Your task to perform on an android device: Search for Italian restaurants on Maps Image 0: 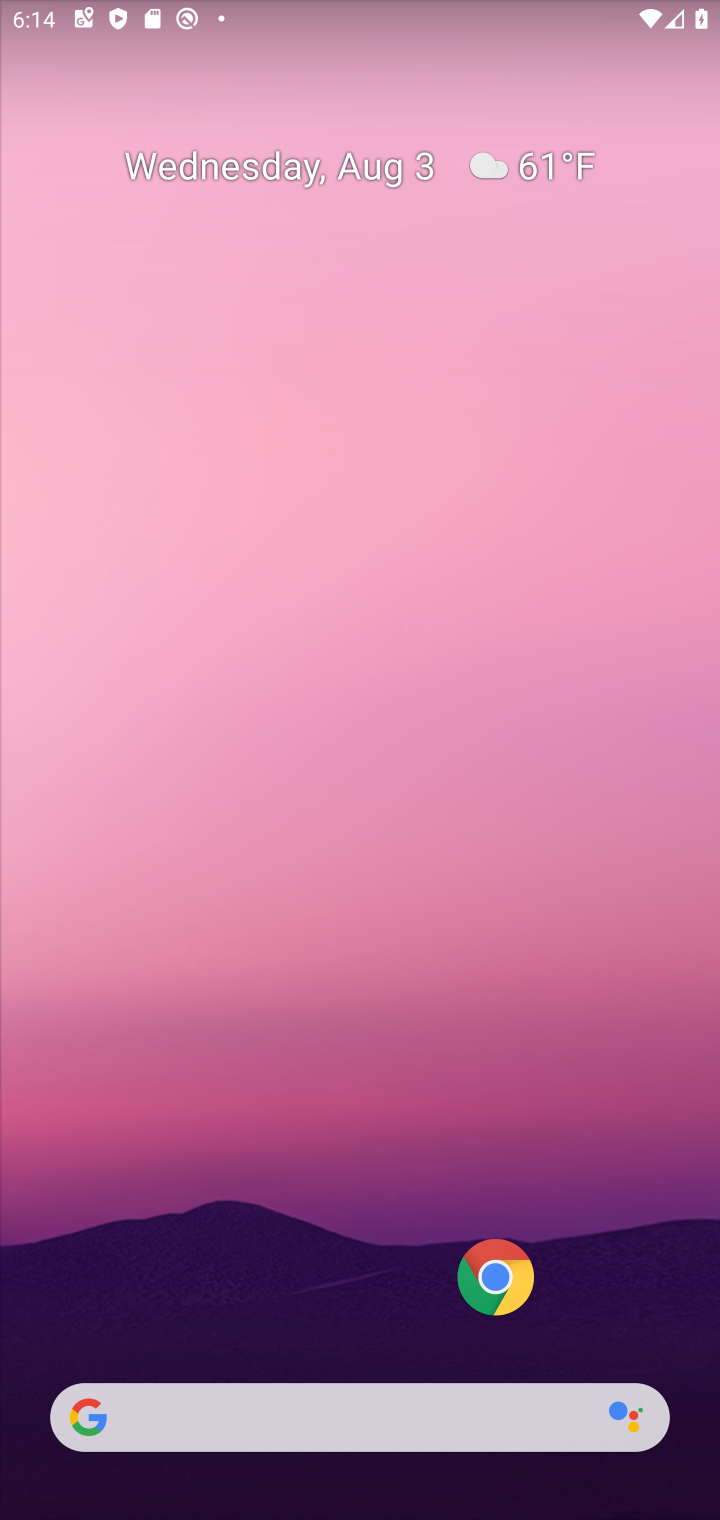
Step 0: drag from (223, 1286) to (308, 85)
Your task to perform on an android device: Search for Italian restaurants on Maps Image 1: 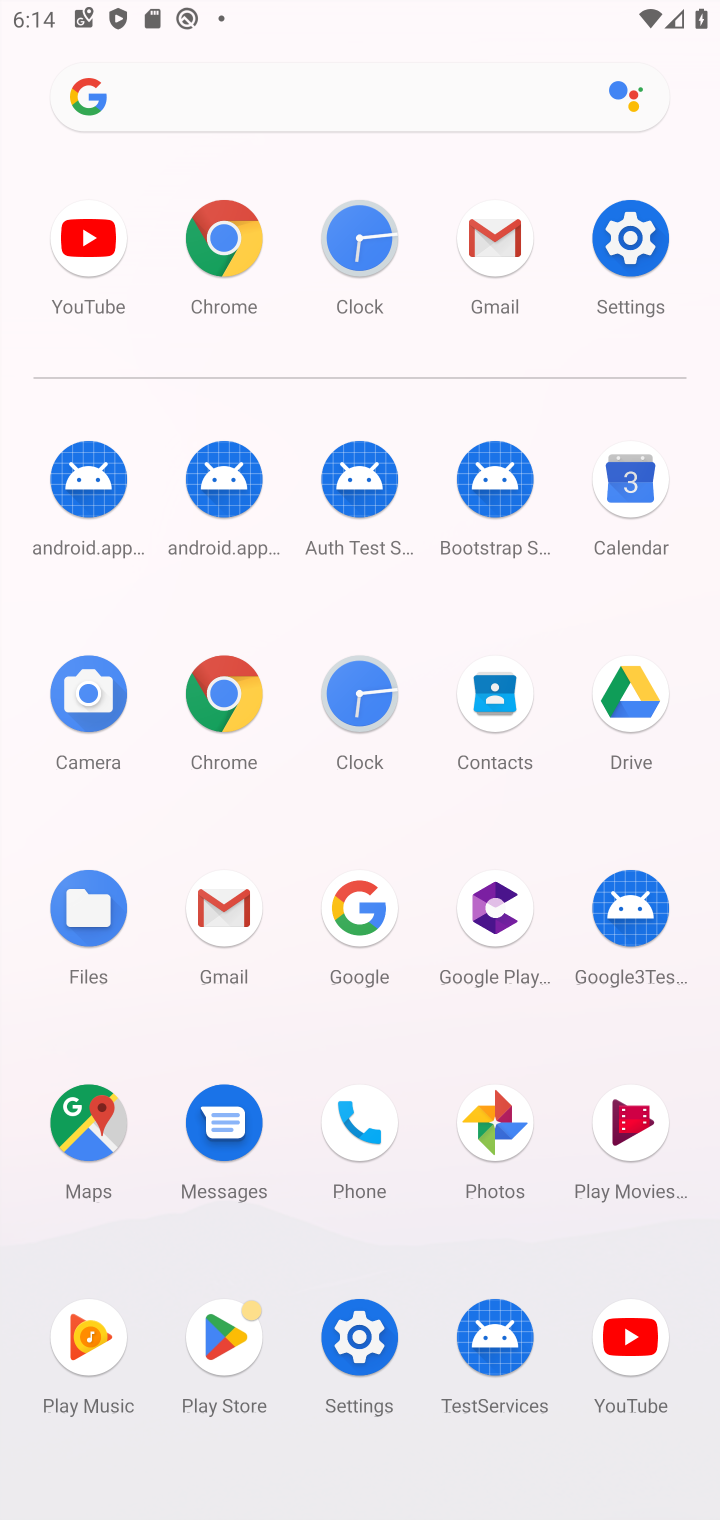
Step 1: click (92, 1118)
Your task to perform on an android device: Search for Italian restaurants on Maps Image 2: 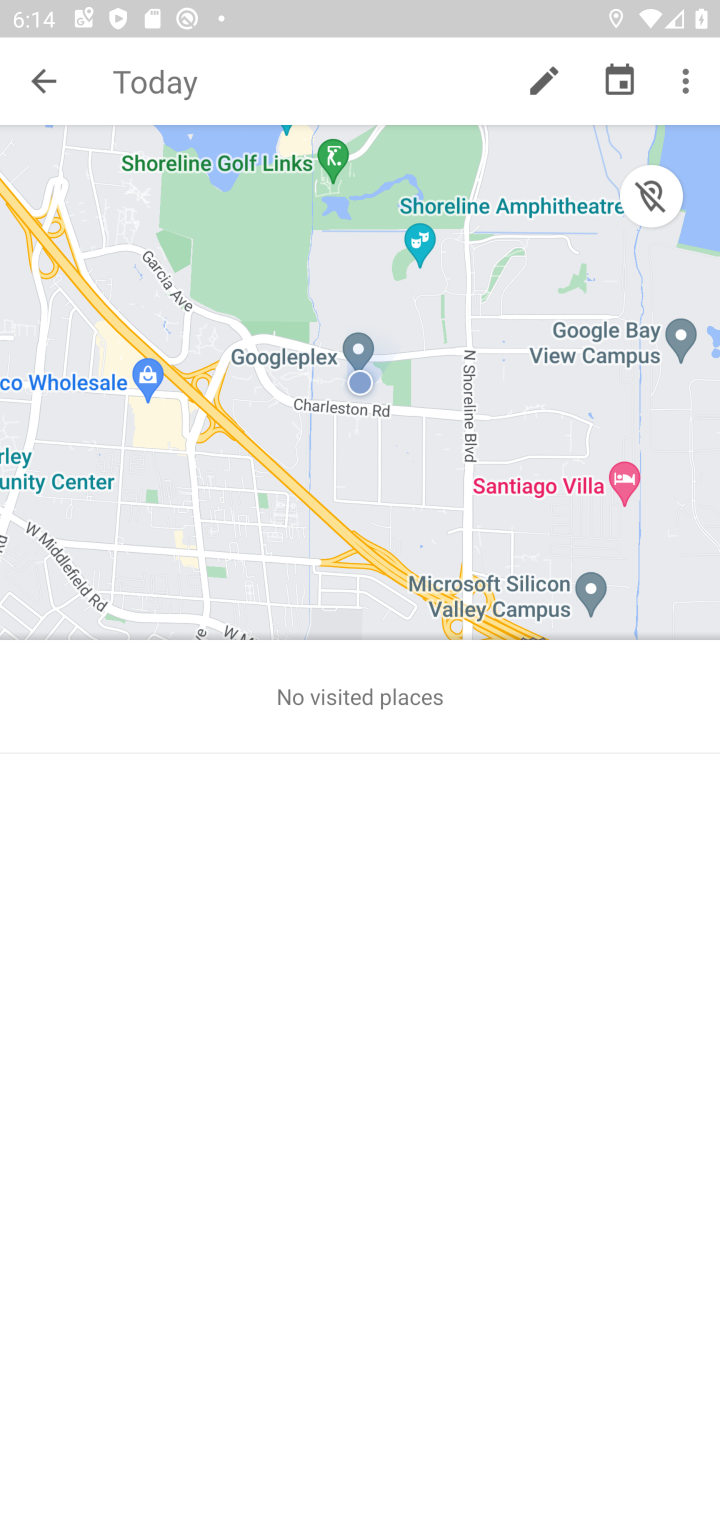
Step 2: click (26, 92)
Your task to perform on an android device: Search for Italian restaurants on Maps Image 3: 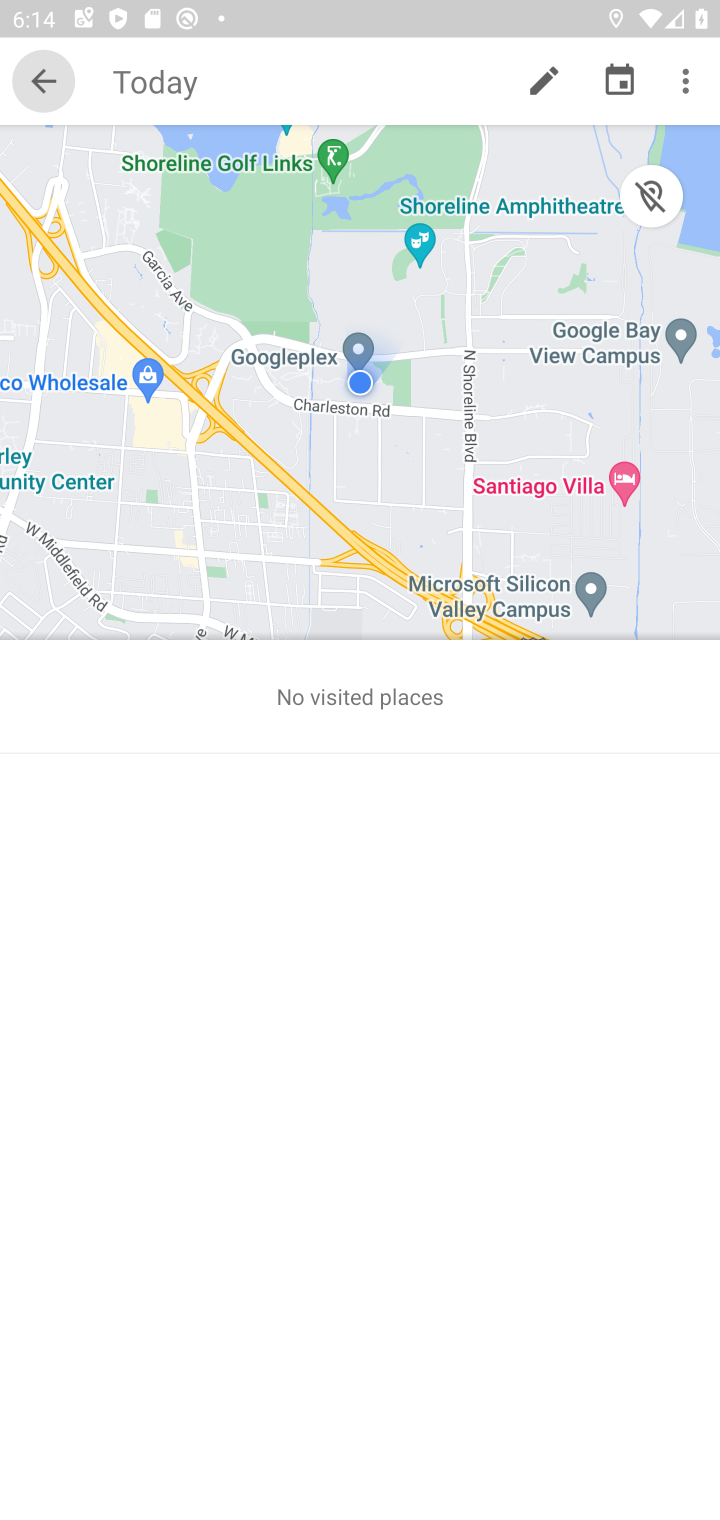
Step 3: click (69, 80)
Your task to perform on an android device: Search for Italian restaurants on Maps Image 4: 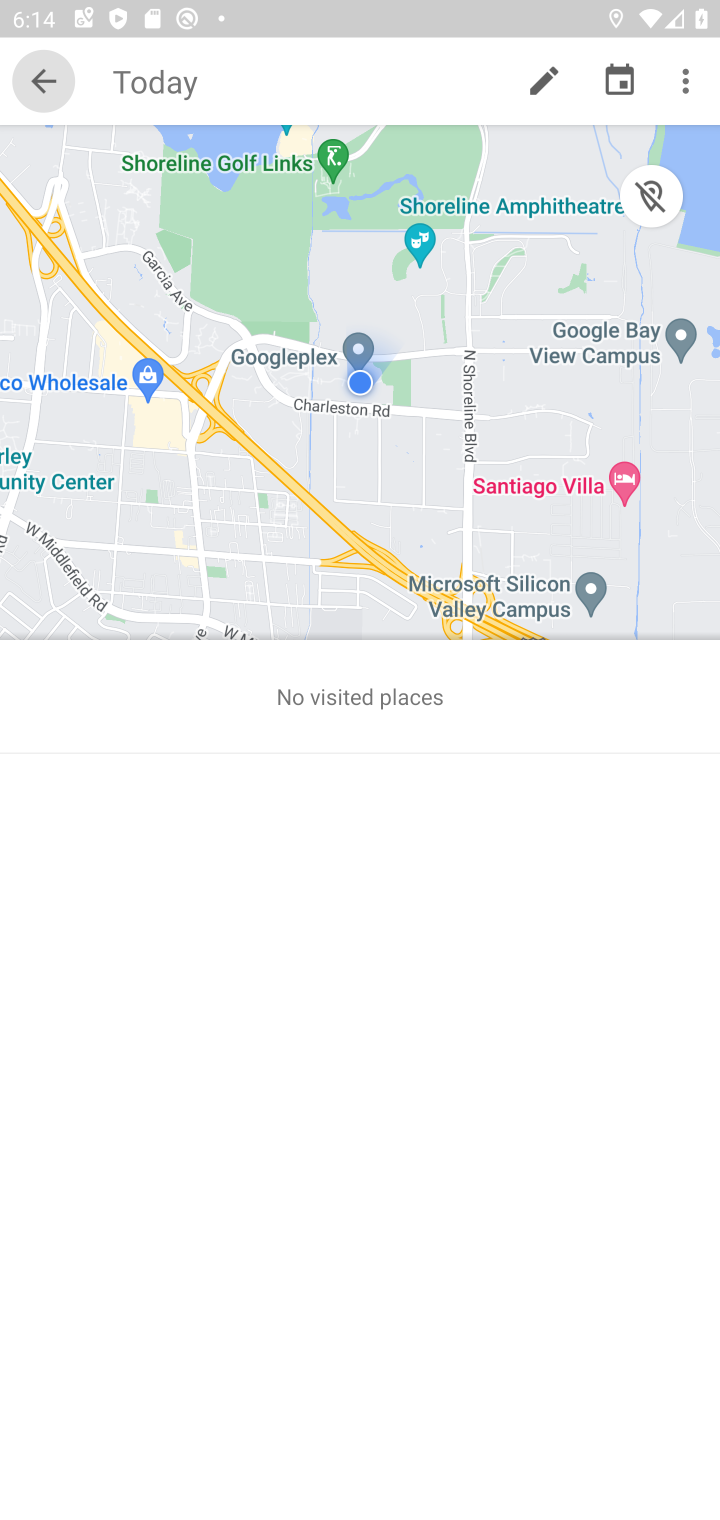
Step 4: click (41, 73)
Your task to perform on an android device: Search for Italian restaurants on Maps Image 5: 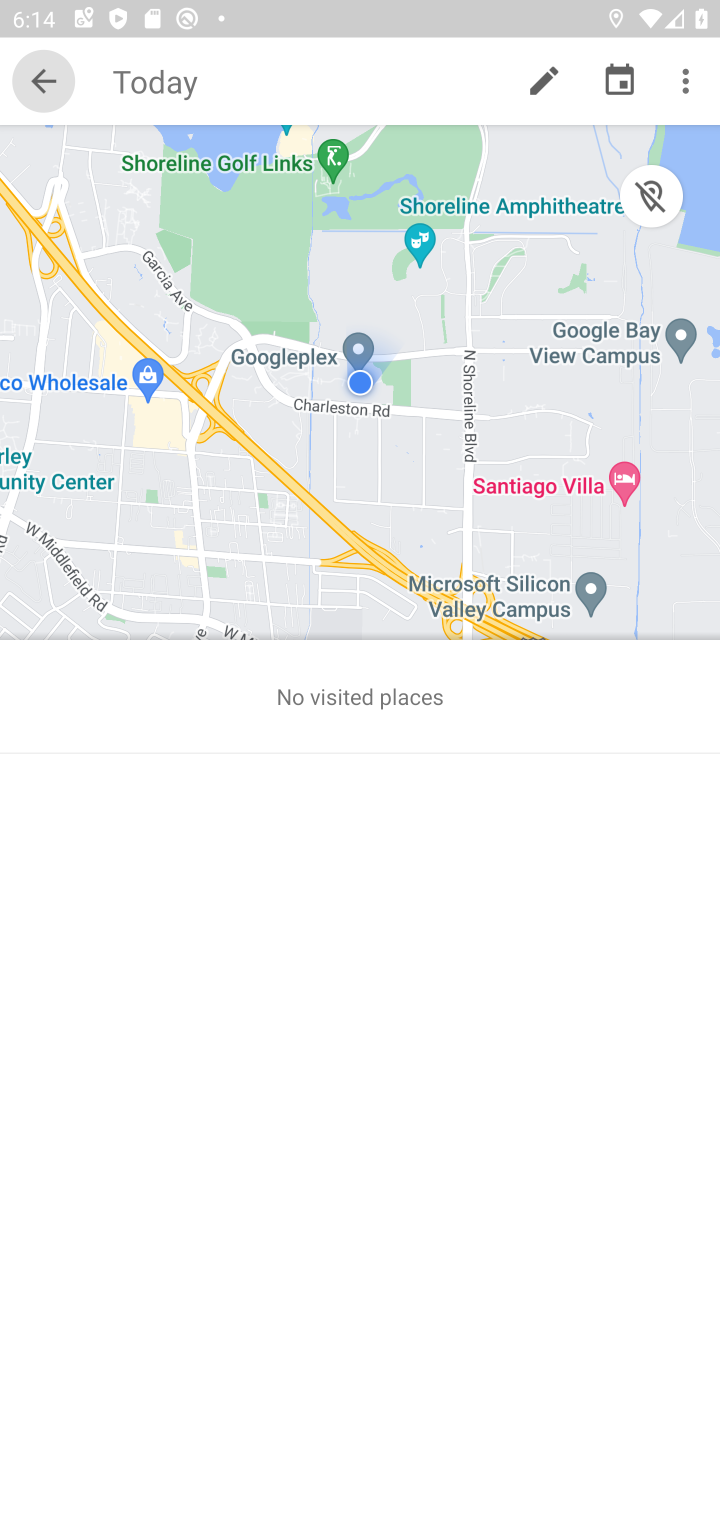
Step 5: click (52, 78)
Your task to perform on an android device: Search for Italian restaurants on Maps Image 6: 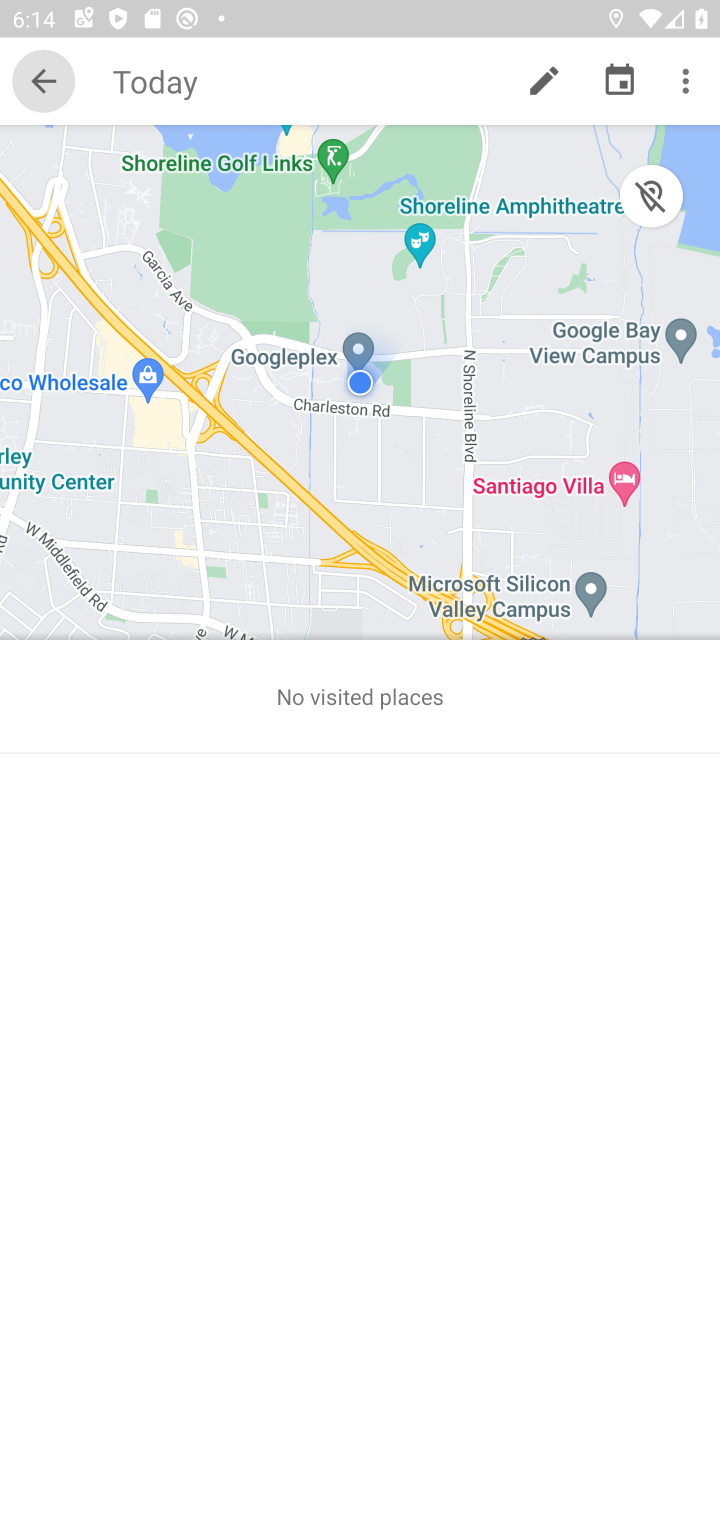
Step 6: click (38, 79)
Your task to perform on an android device: Search for Italian restaurants on Maps Image 7: 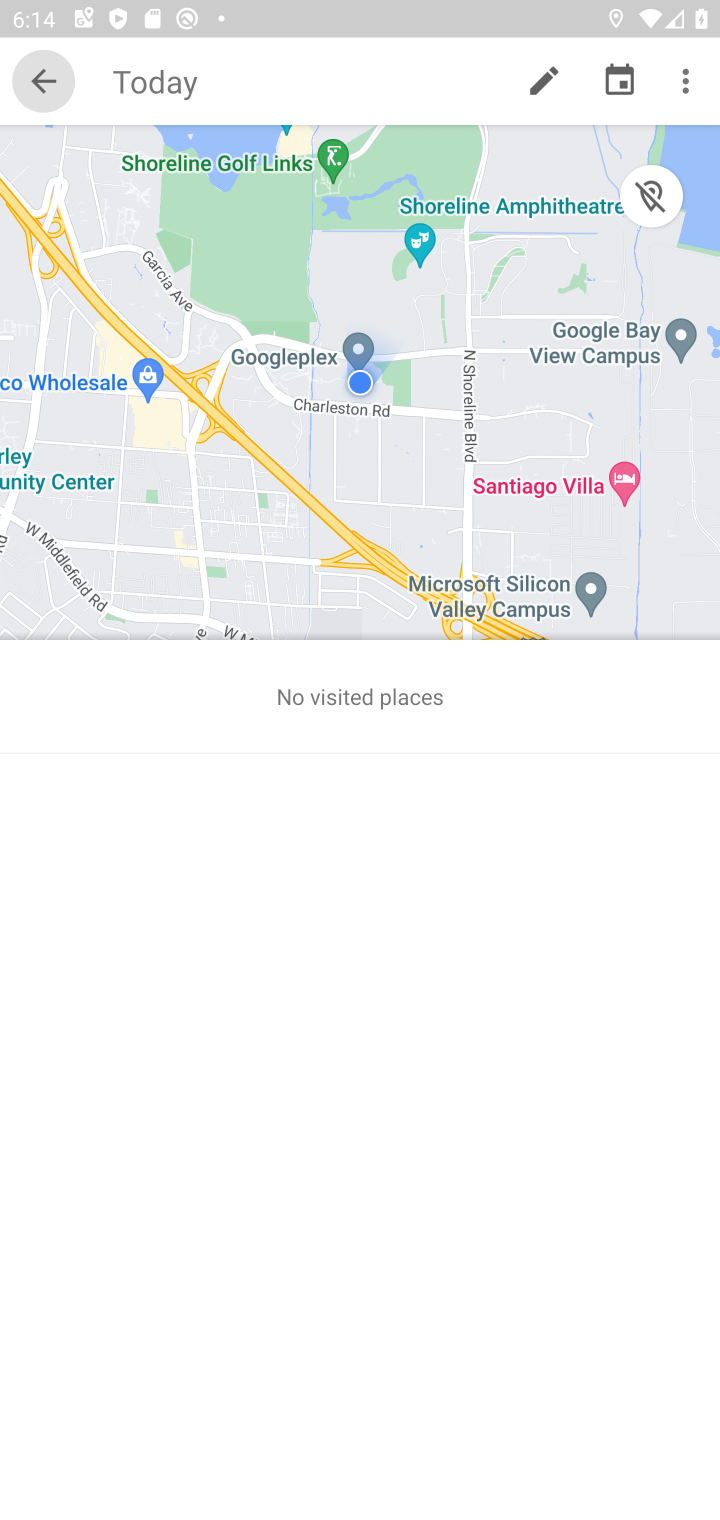
Step 7: click (551, 69)
Your task to perform on an android device: Search for Italian restaurants on Maps Image 8: 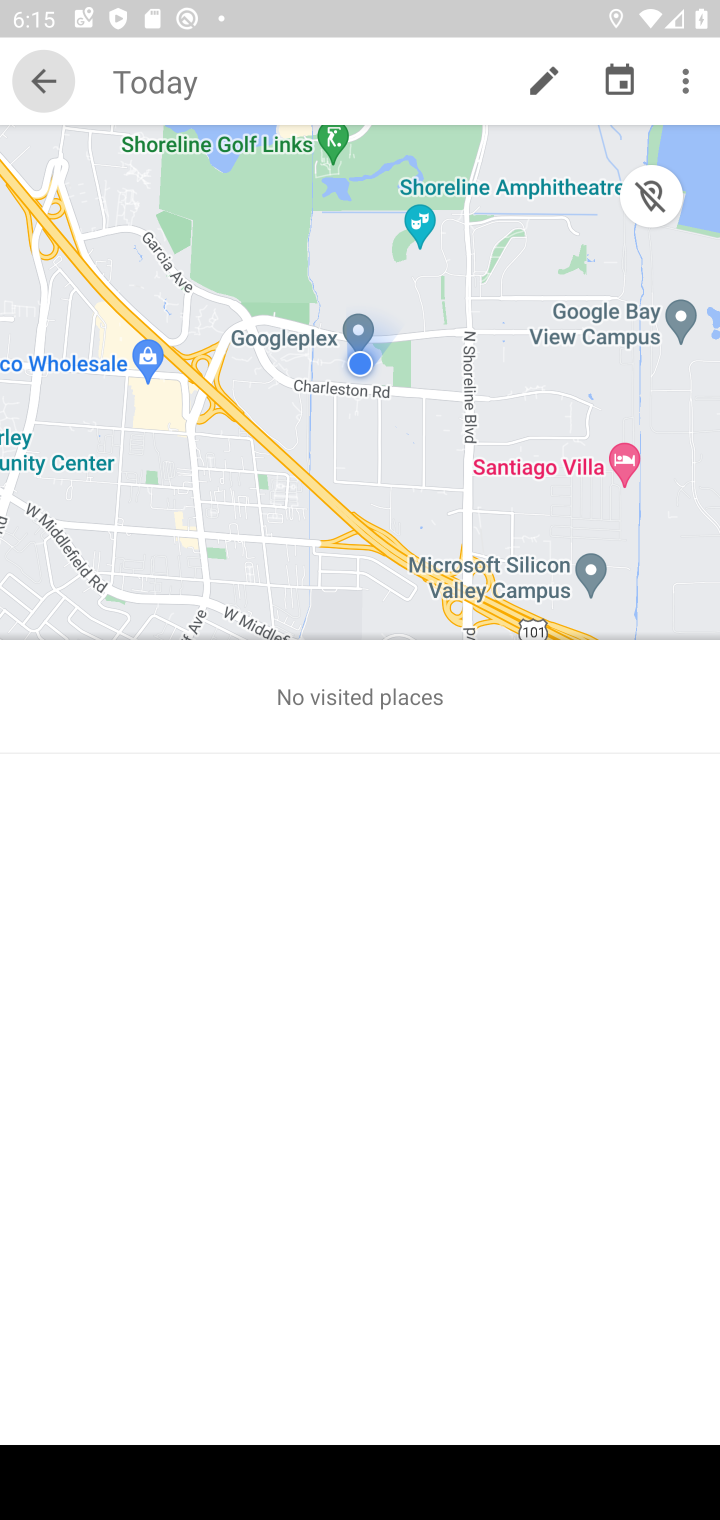
Step 8: click (70, 81)
Your task to perform on an android device: Search for Italian restaurants on Maps Image 9: 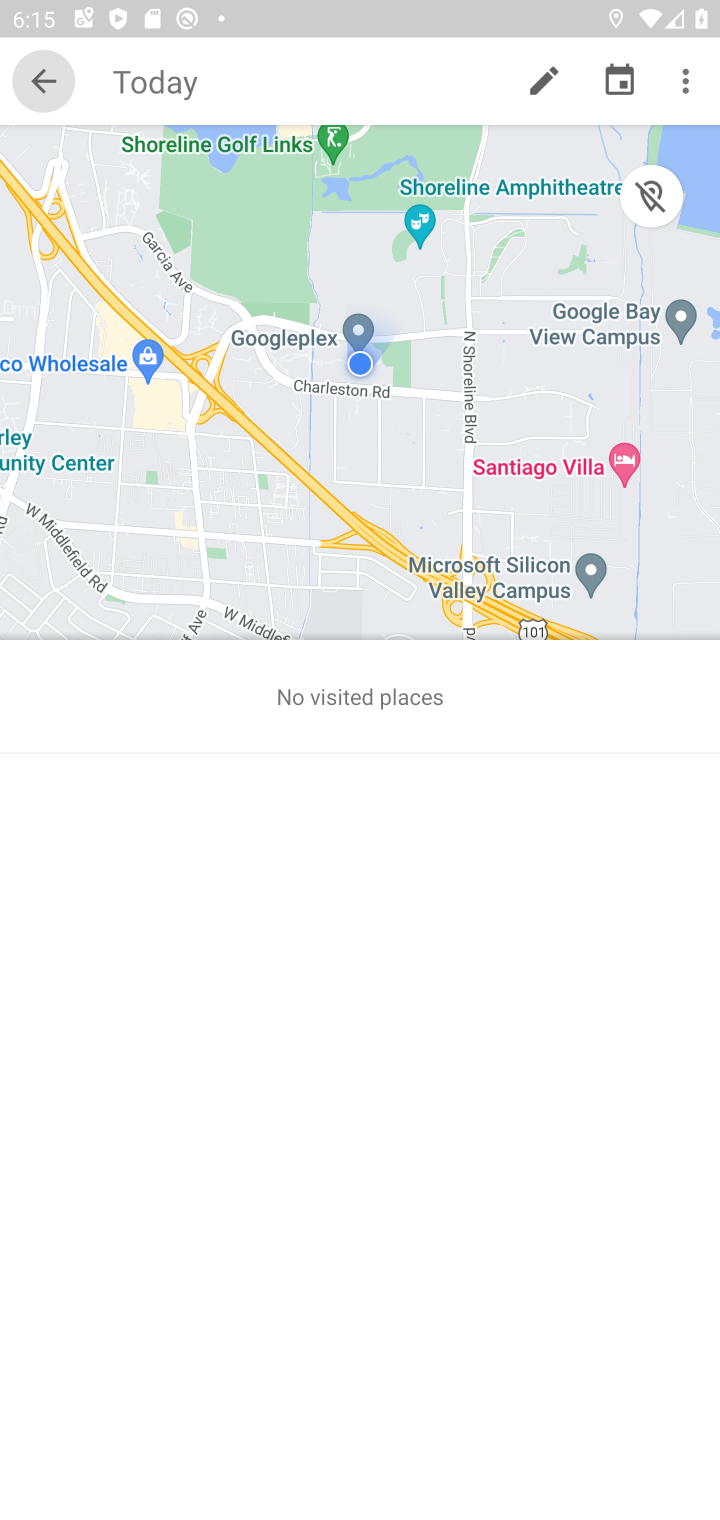
Step 9: press home button
Your task to perform on an android device: Search for Italian restaurants on Maps Image 10: 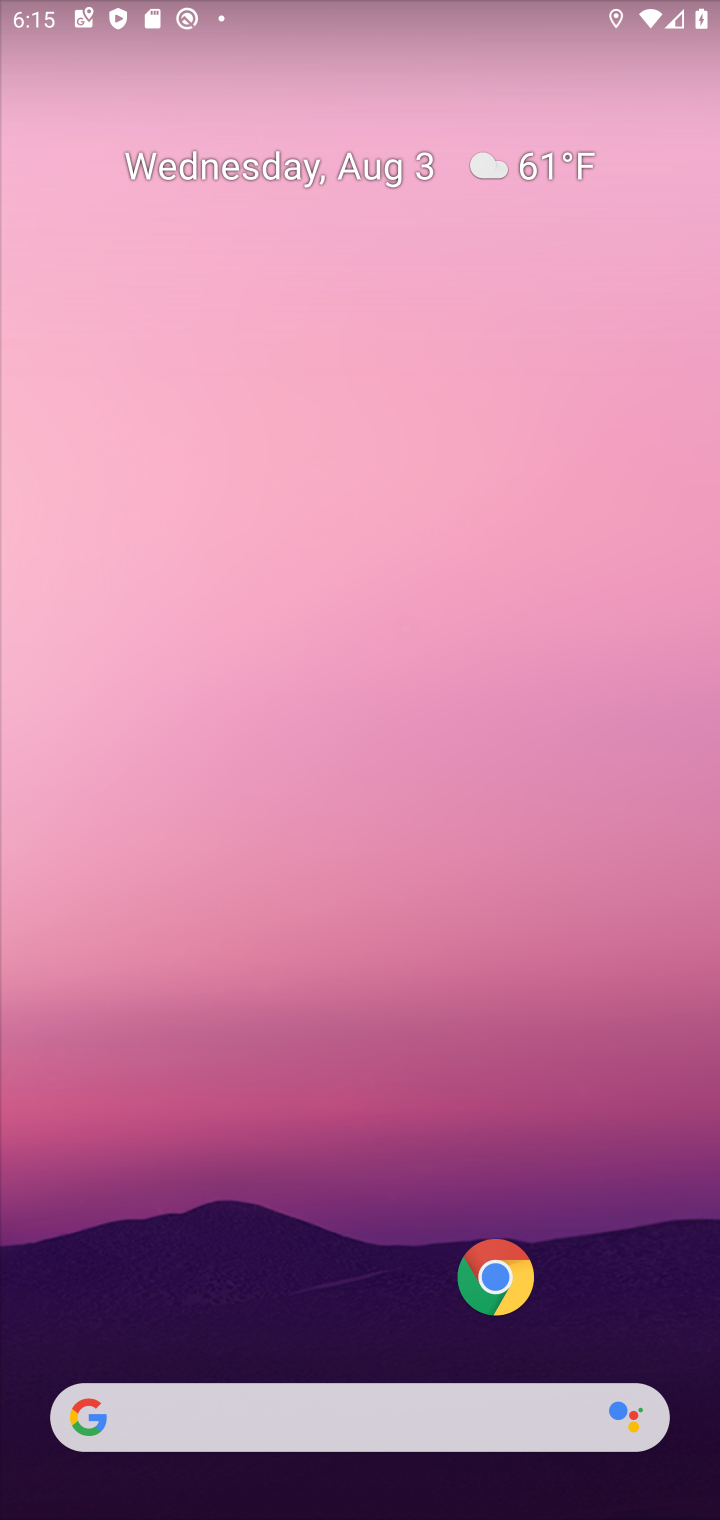
Step 10: drag from (264, 1193) to (450, 125)
Your task to perform on an android device: Search for Italian restaurants on Maps Image 11: 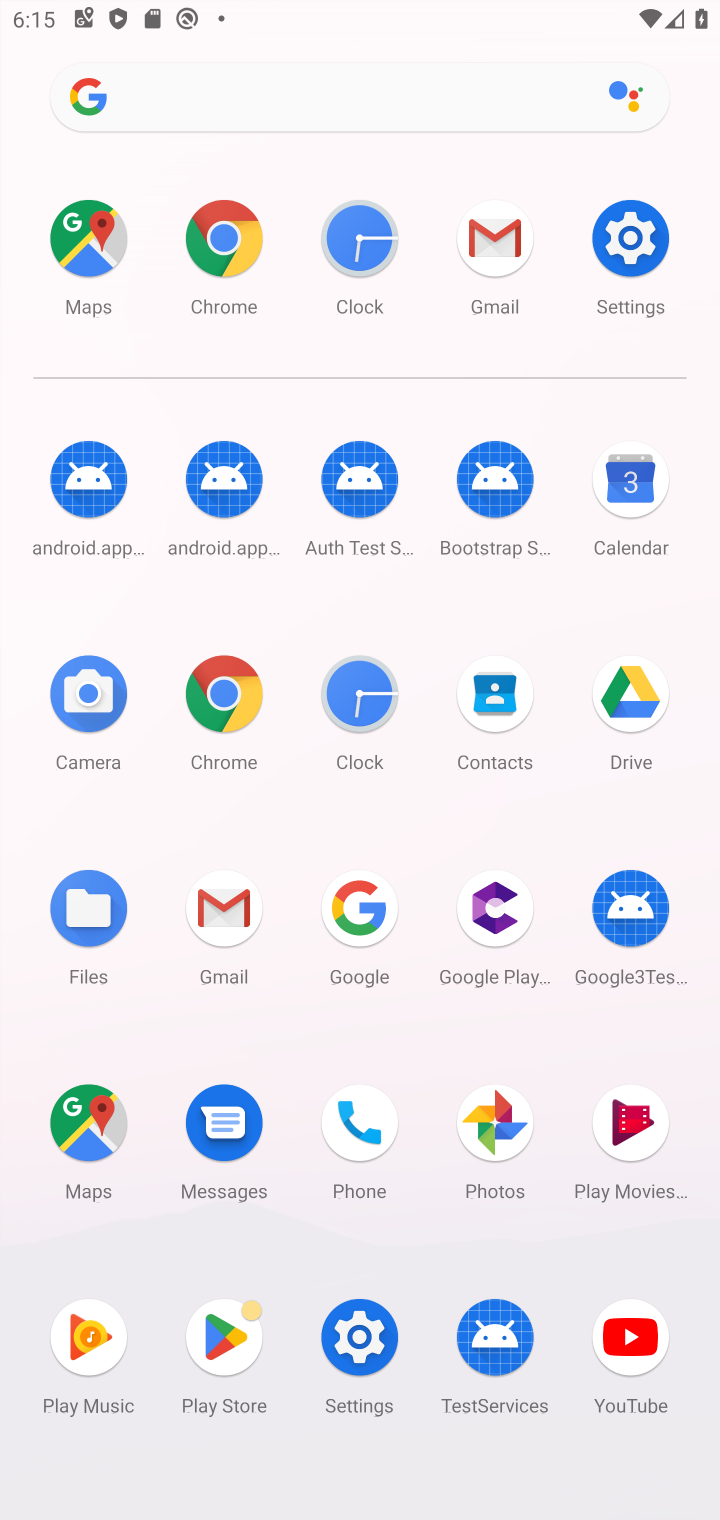
Step 11: click (100, 1139)
Your task to perform on an android device: Search for Italian restaurants on Maps Image 12: 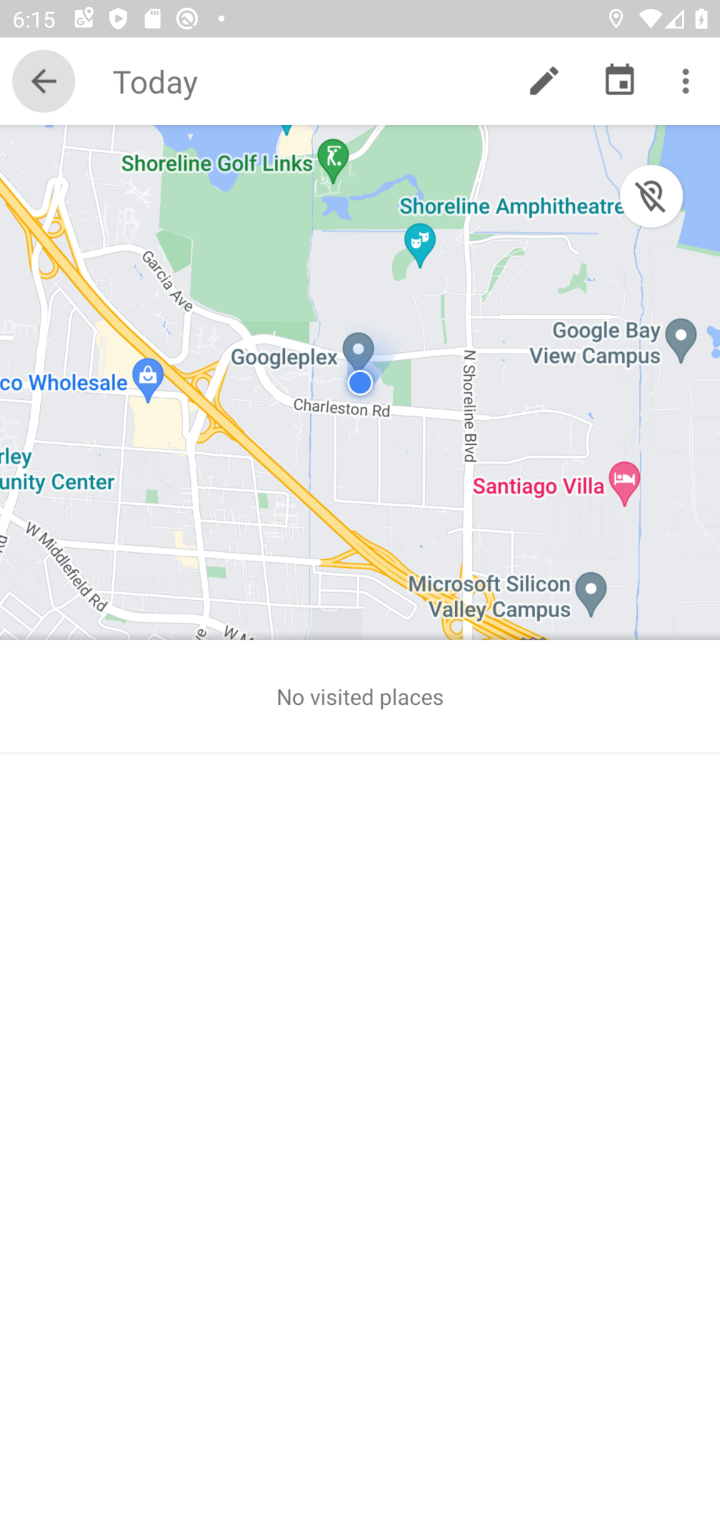
Step 12: click (35, 62)
Your task to perform on an android device: Search for Italian restaurants on Maps Image 13: 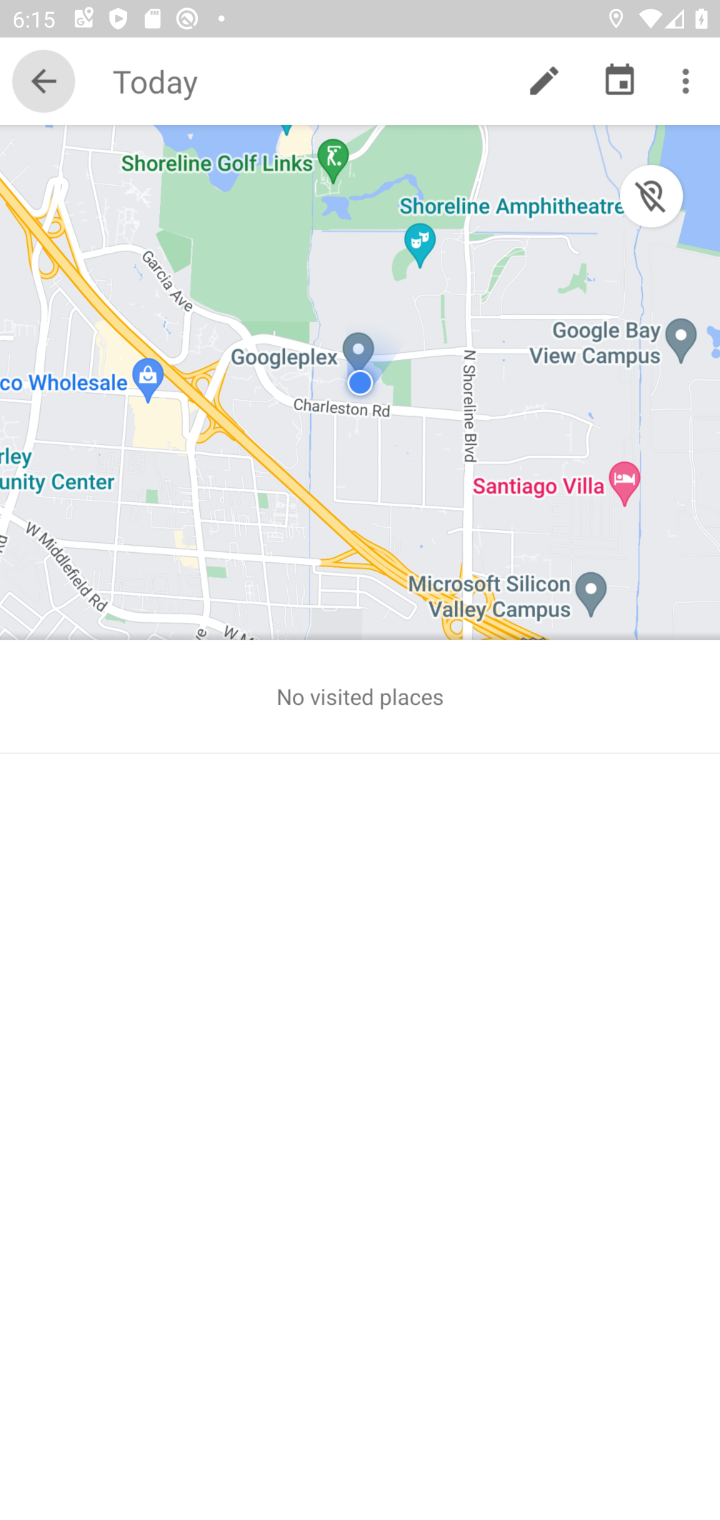
Step 13: click (687, 76)
Your task to perform on an android device: Search for Italian restaurants on Maps Image 14: 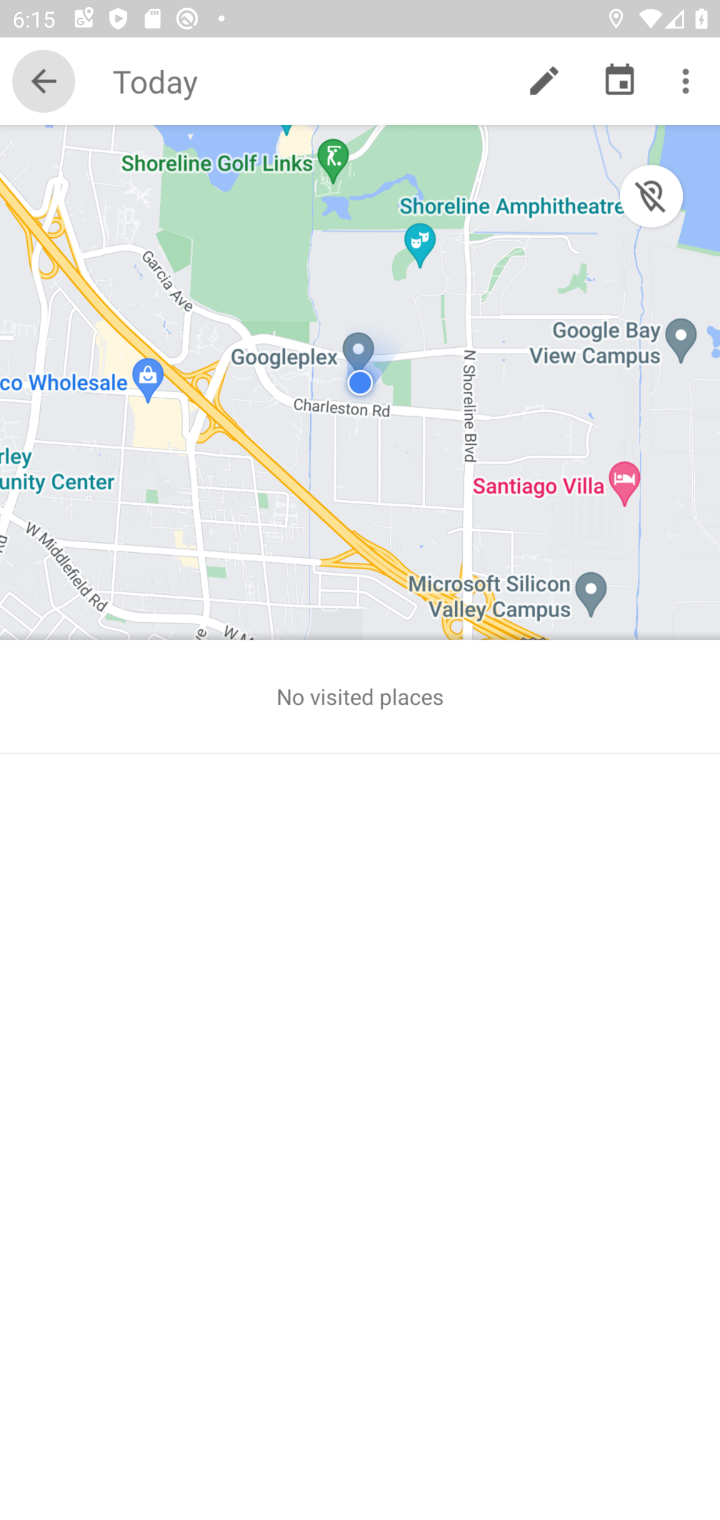
Step 14: task complete